Your task to perform on an android device: View the shopping cart on costco. Add "bose soundsport free" to the cart on costco, then select checkout. Image 0: 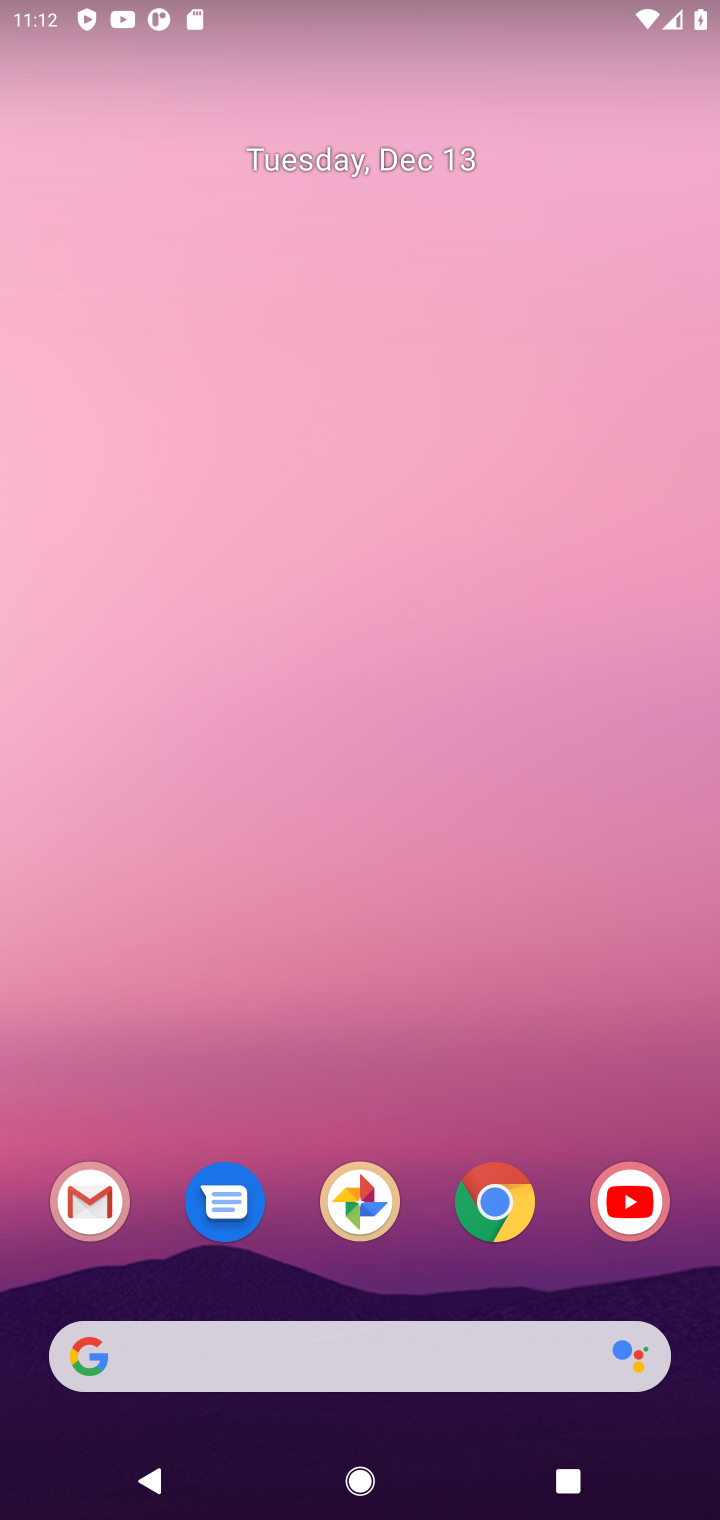
Step 0: click (488, 1210)
Your task to perform on an android device: View the shopping cart on costco. Add "bose soundsport free" to the cart on costco, then select checkout. Image 1: 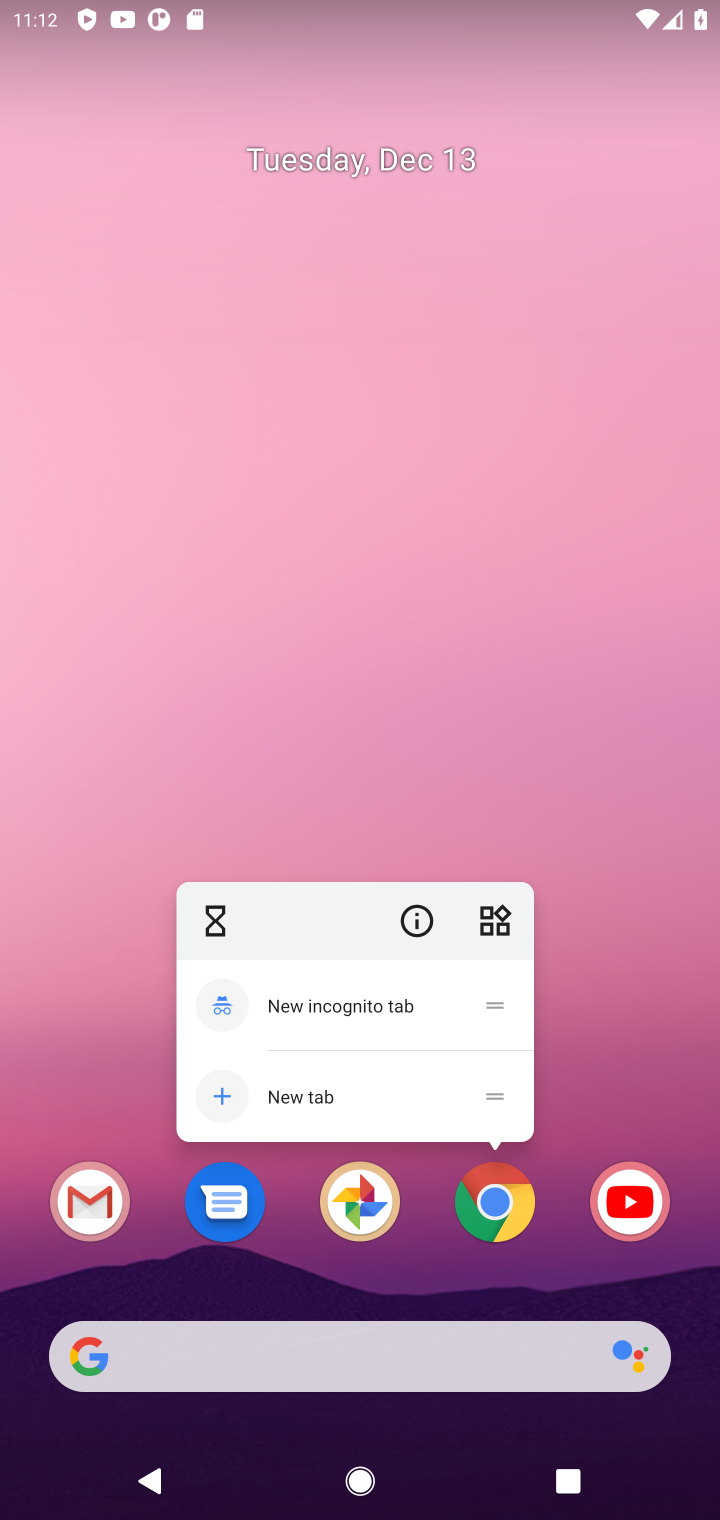
Step 1: click (488, 1210)
Your task to perform on an android device: View the shopping cart on costco. Add "bose soundsport free" to the cart on costco, then select checkout. Image 2: 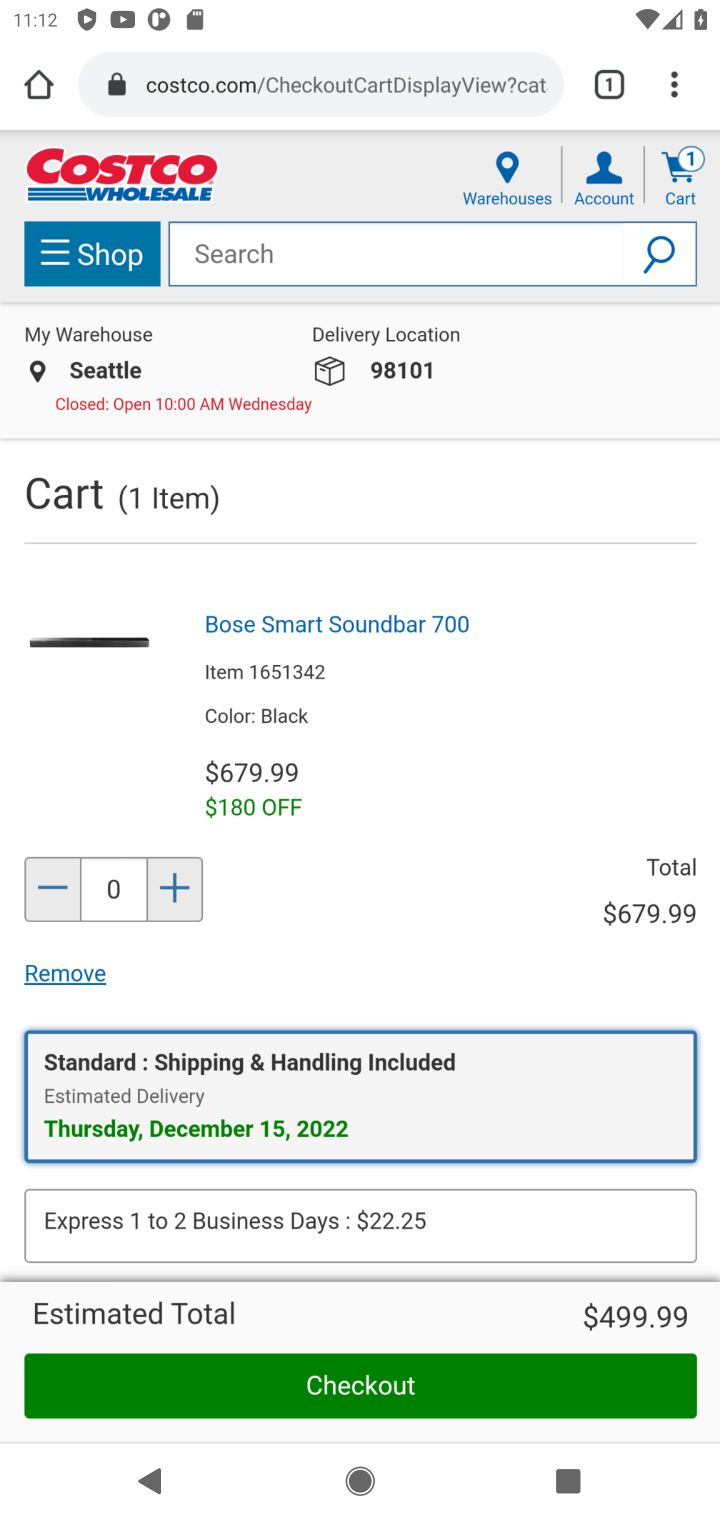
Step 2: click (488, 1210)
Your task to perform on an android device: View the shopping cart on costco. Add "bose soundsport free" to the cart on costco, then select checkout. Image 3: 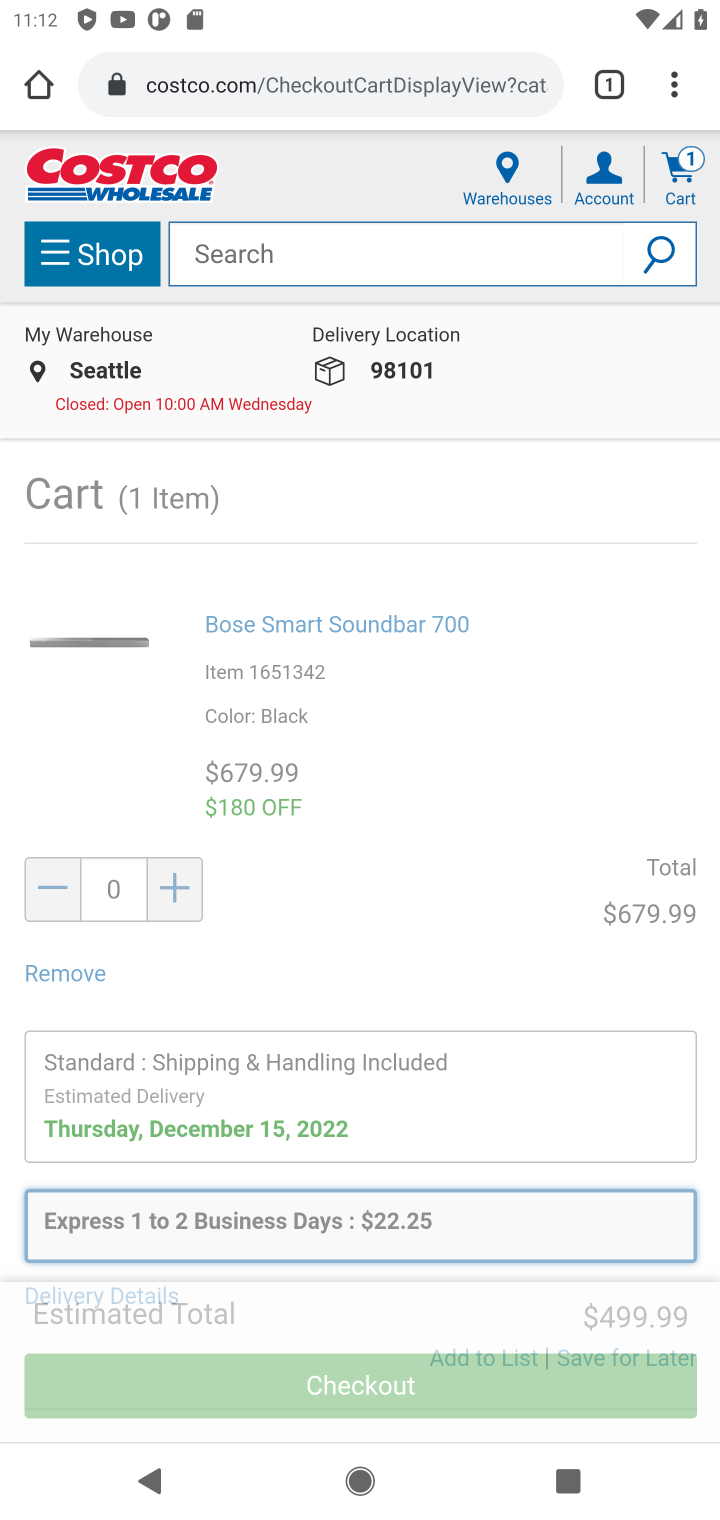
Step 3: click (356, 85)
Your task to perform on an android device: View the shopping cart on costco. Add "bose soundsport free" to the cart on costco, then select checkout. Image 4: 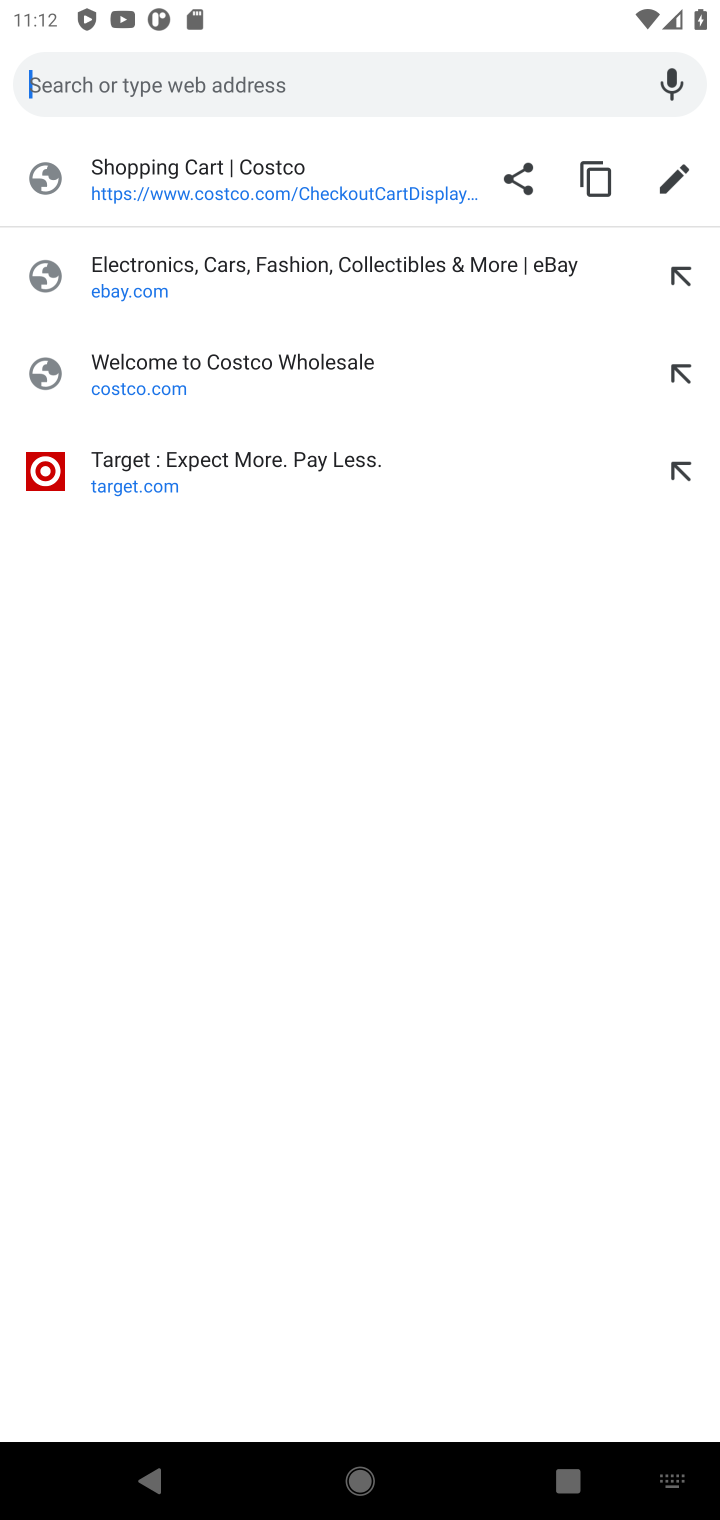
Step 4: click (178, 367)
Your task to perform on an android device: View the shopping cart on costco. Add "bose soundsport free" to the cart on costco, then select checkout. Image 5: 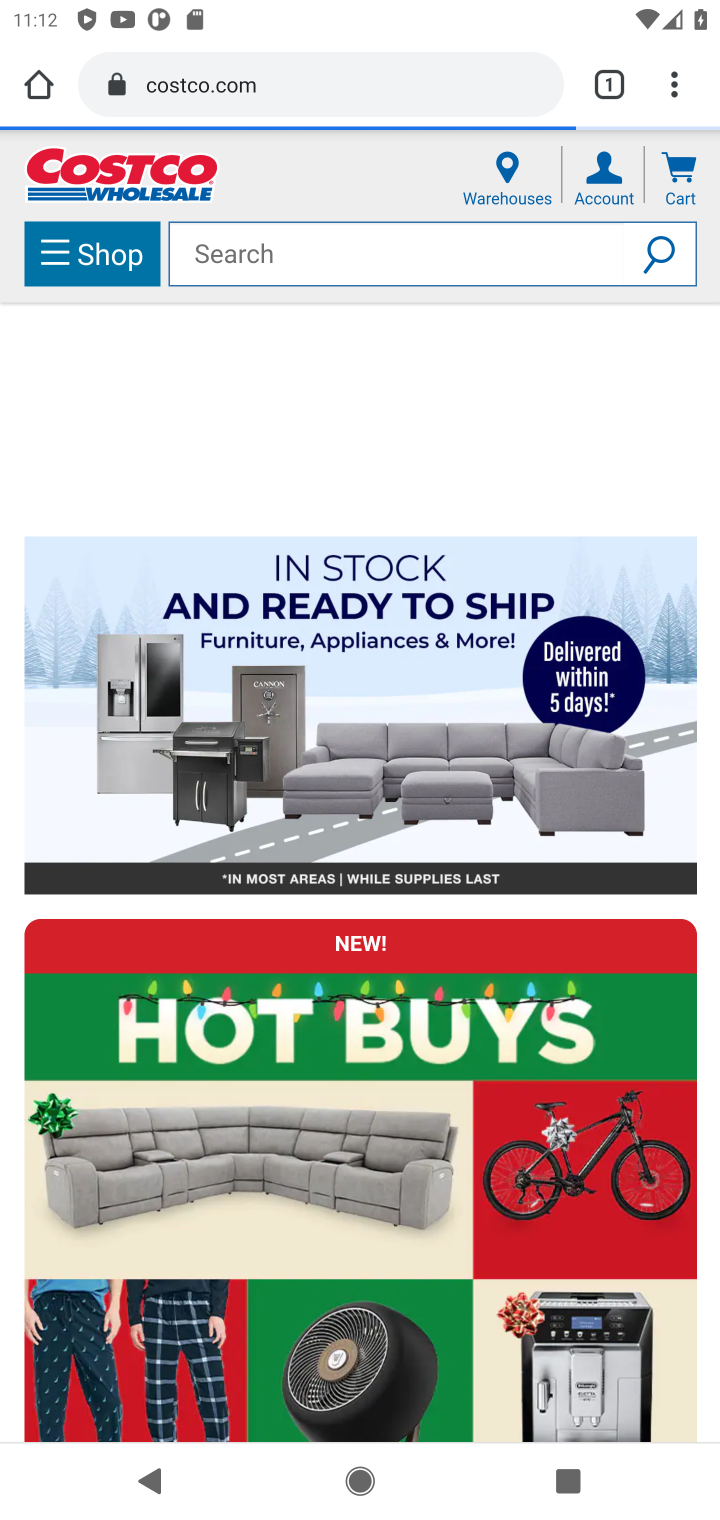
Step 5: click (318, 242)
Your task to perform on an android device: View the shopping cart on costco. Add "bose soundsport free" to the cart on costco, then select checkout. Image 6: 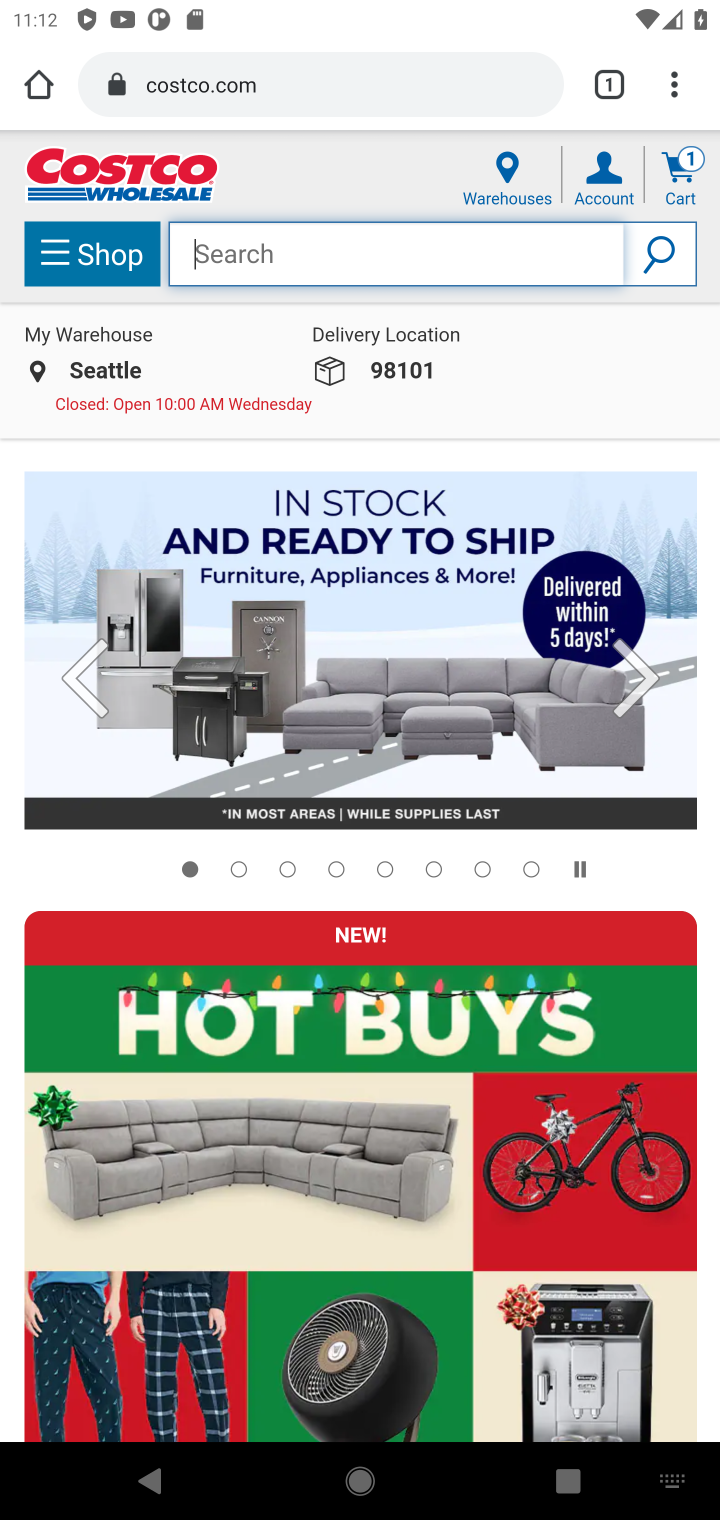
Step 6: type "bose soundsport free"
Your task to perform on an android device: View the shopping cart on costco. Add "bose soundsport free" to the cart on costco, then select checkout. Image 7: 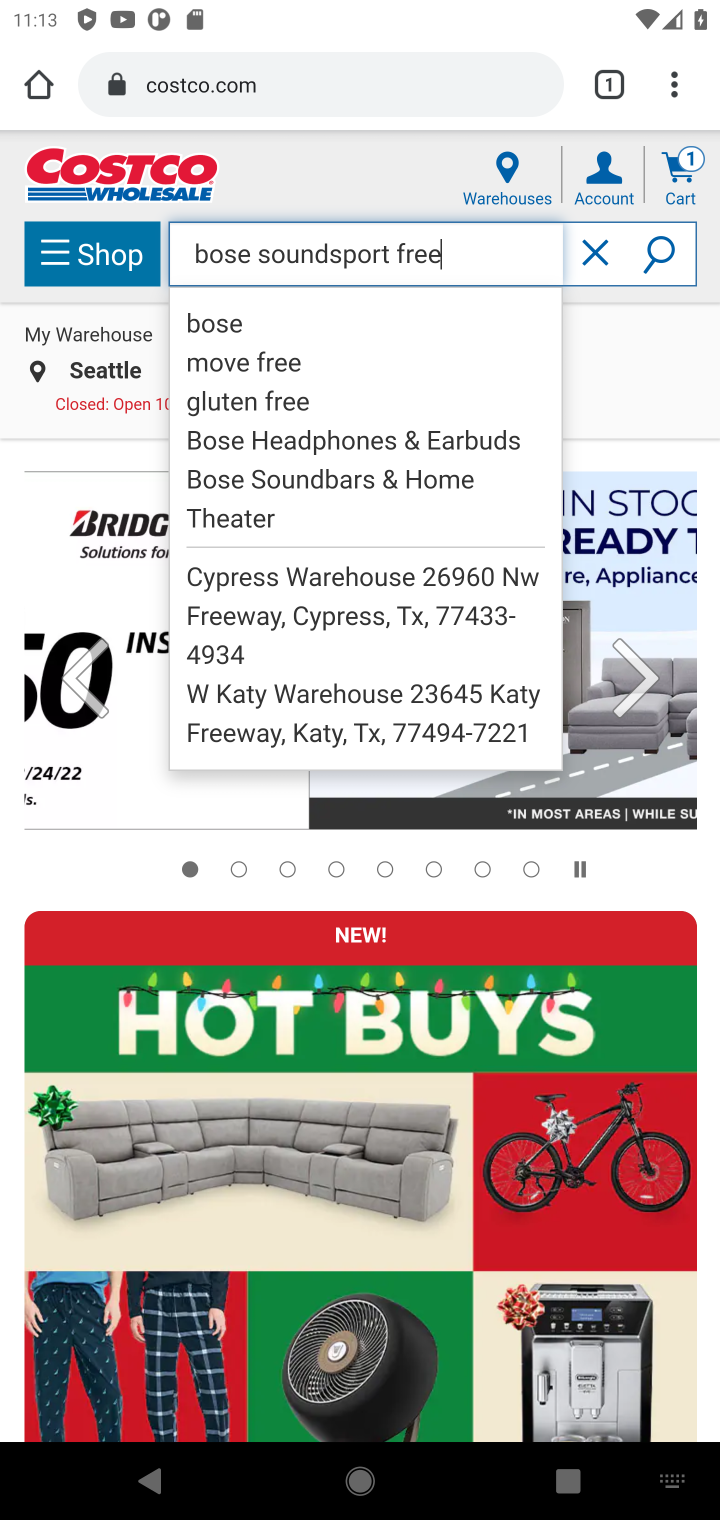
Step 7: click (232, 337)
Your task to perform on an android device: View the shopping cart on costco. Add "bose soundsport free" to the cart on costco, then select checkout. Image 8: 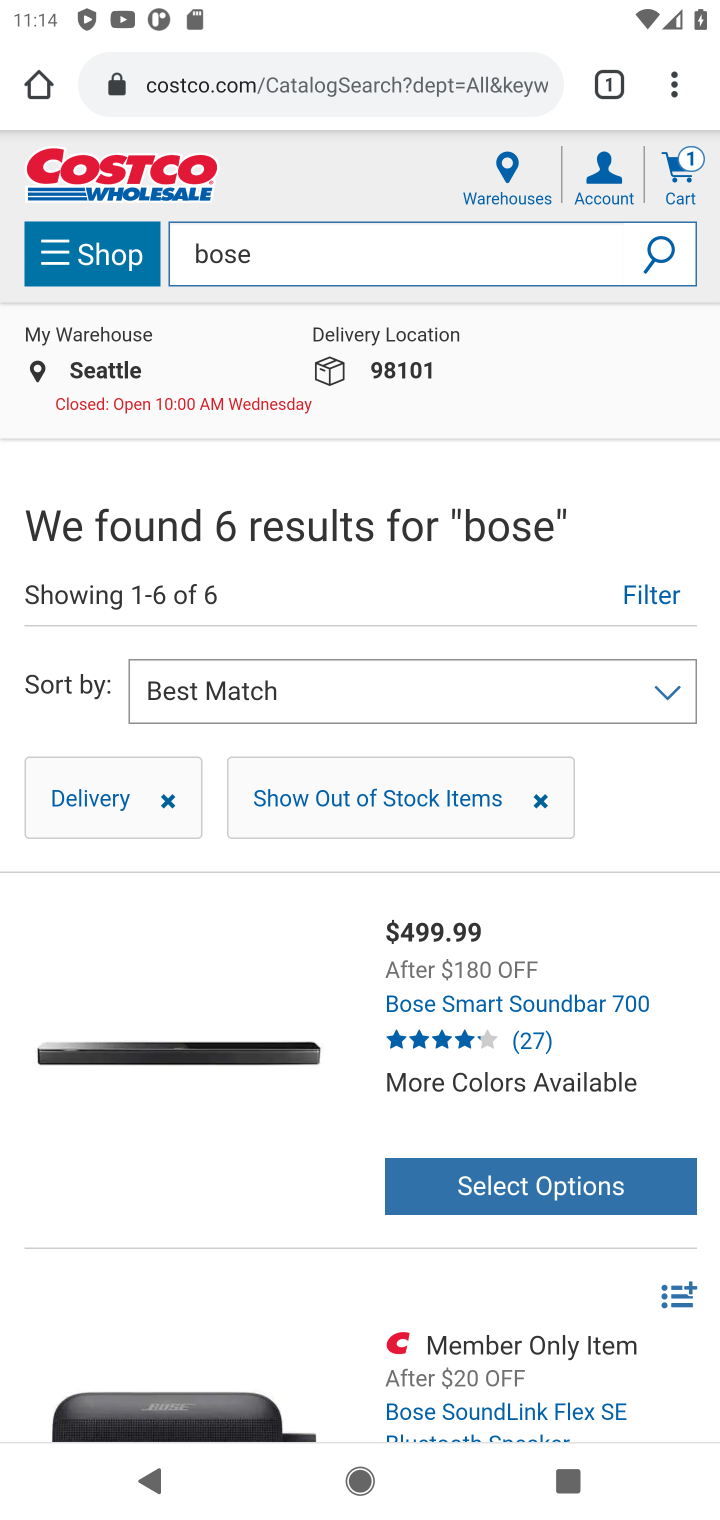
Step 8: click (271, 1037)
Your task to perform on an android device: View the shopping cart on costco. Add "bose soundsport free" to the cart on costco, then select checkout. Image 9: 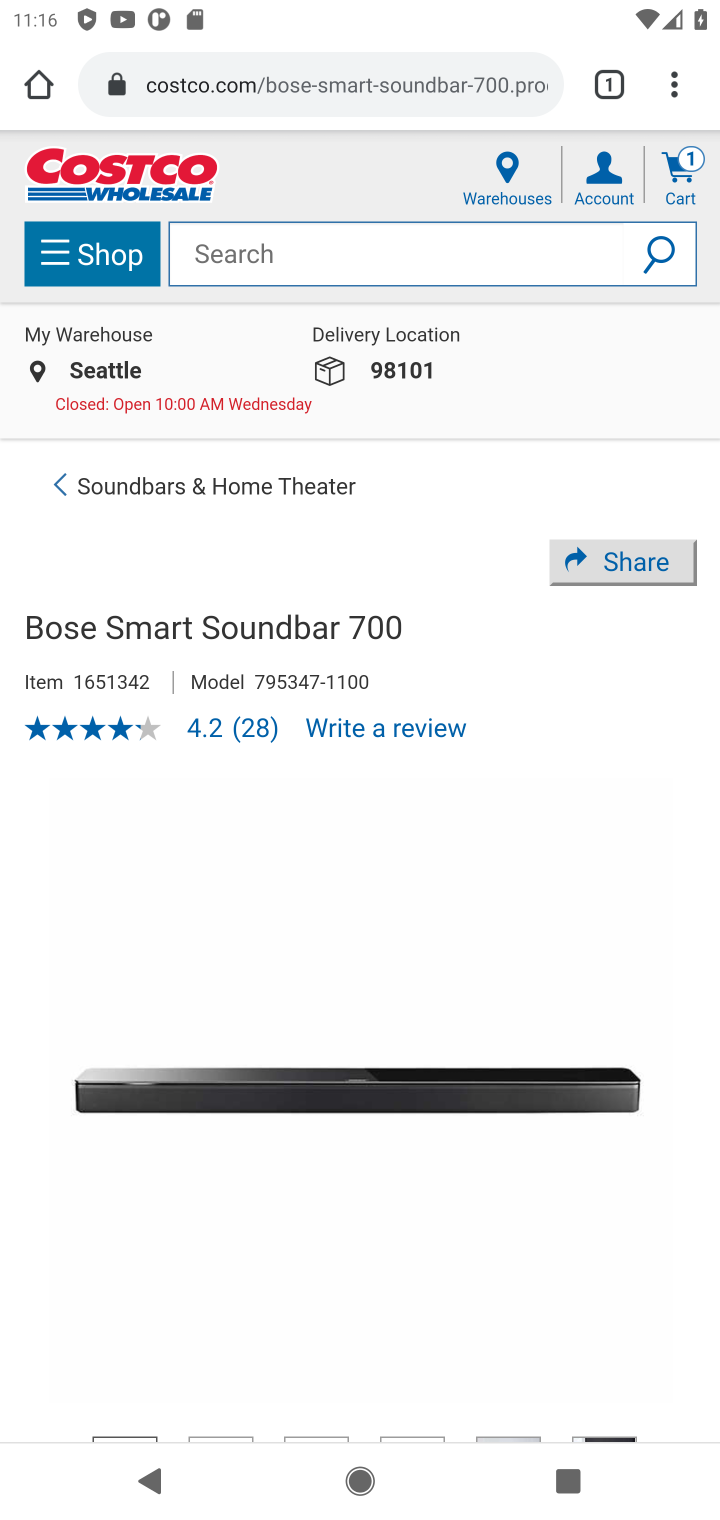
Step 9: drag from (377, 1183) to (298, 228)
Your task to perform on an android device: View the shopping cart on costco. Add "bose soundsport free" to the cart on costco, then select checkout. Image 10: 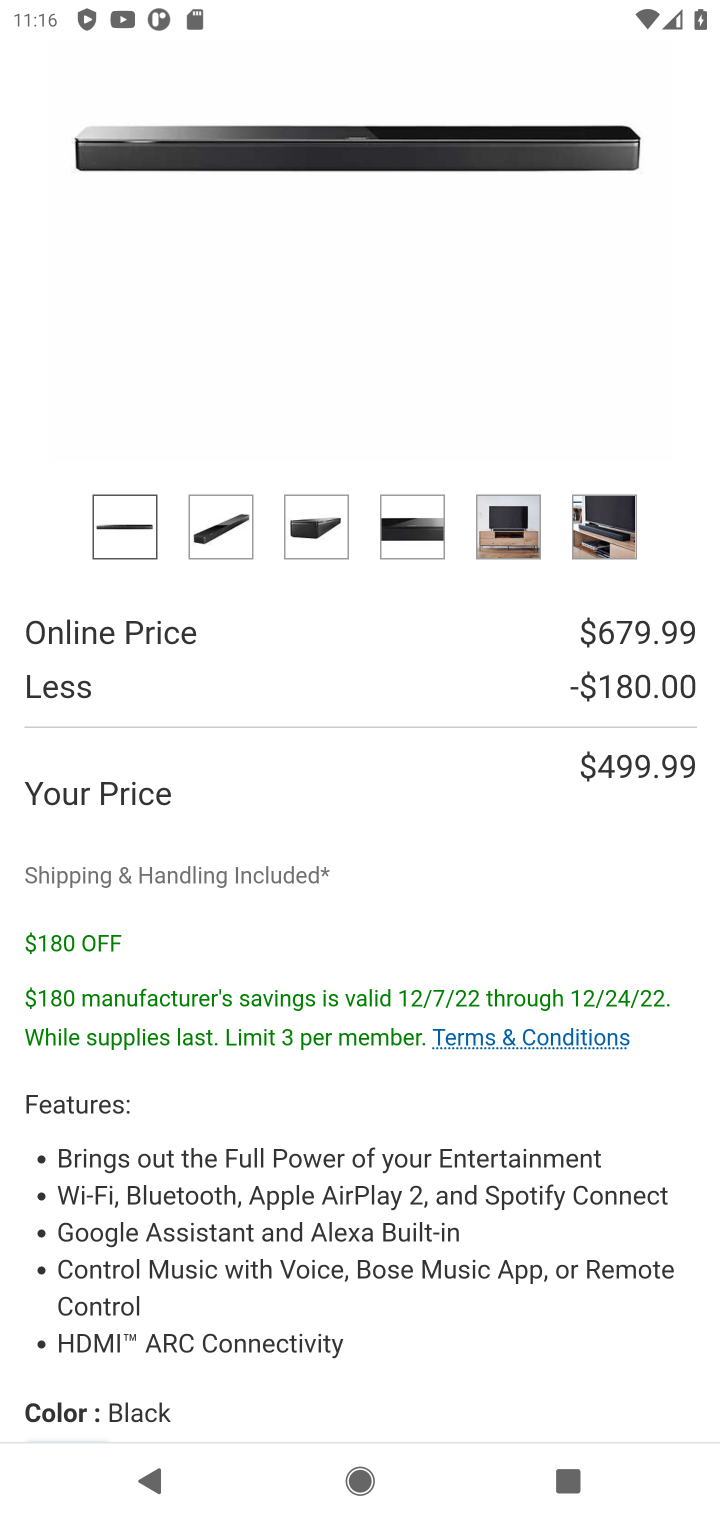
Step 10: drag from (529, 1292) to (455, 152)
Your task to perform on an android device: View the shopping cart on costco. Add "bose soundsport free" to the cart on costco, then select checkout. Image 11: 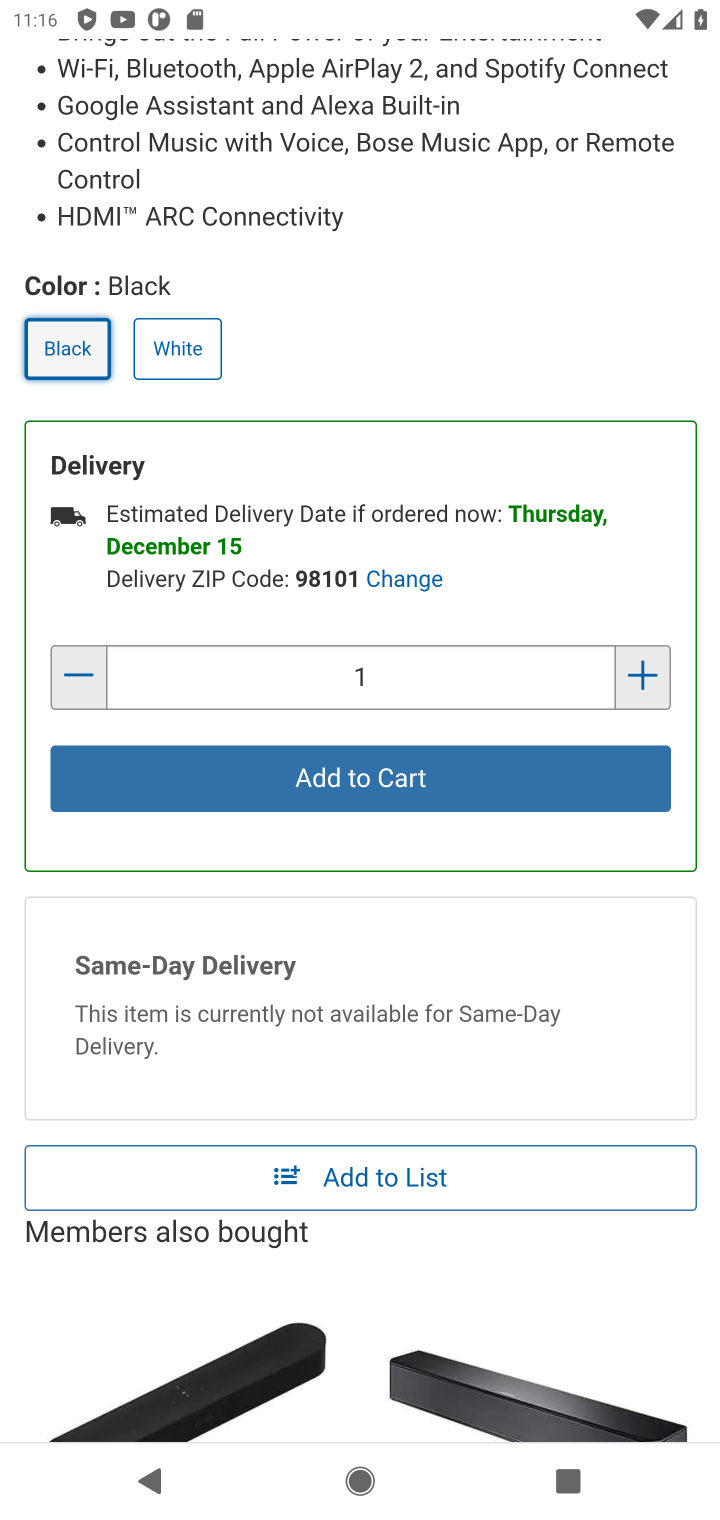
Step 11: click (360, 781)
Your task to perform on an android device: View the shopping cart on costco. Add "bose soundsport free" to the cart on costco, then select checkout. Image 12: 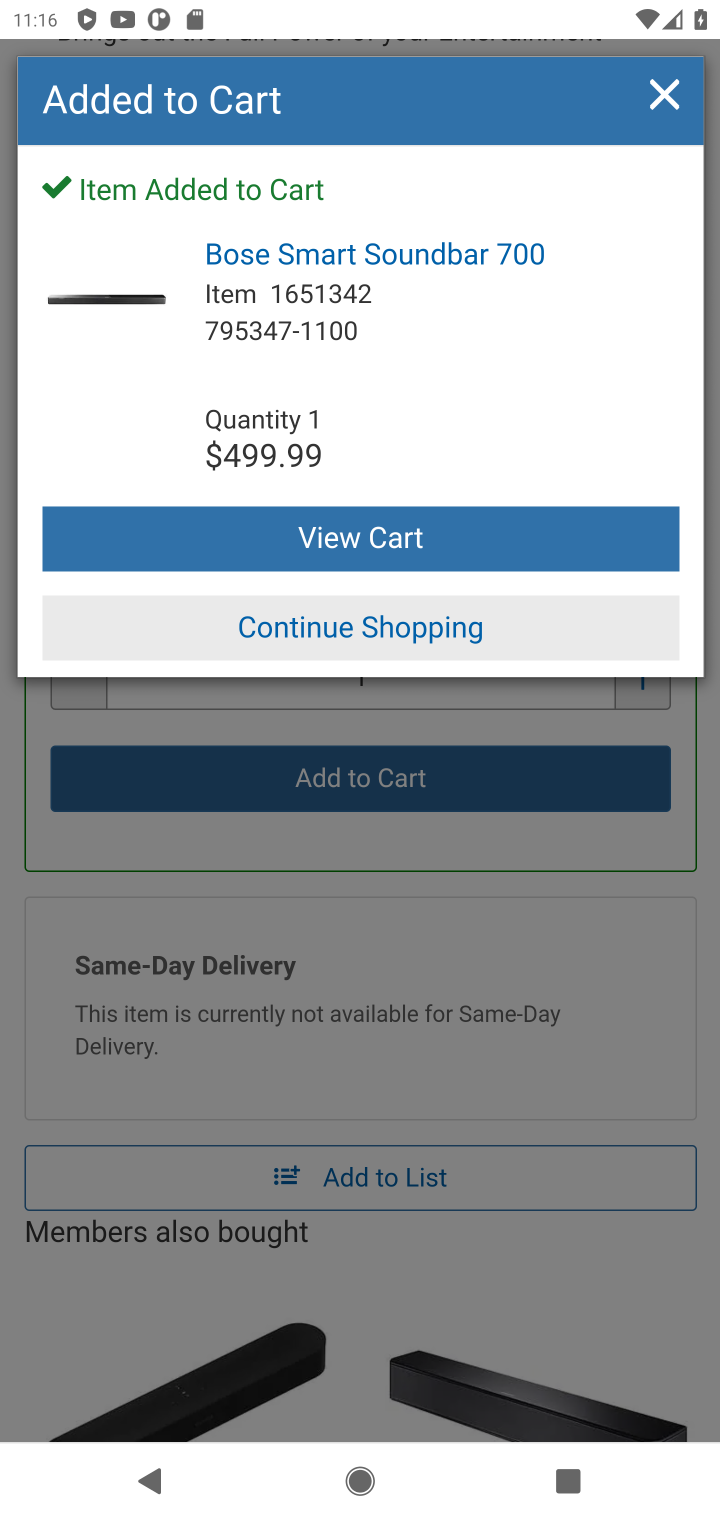
Step 12: click (392, 533)
Your task to perform on an android device: View the shopping cart on costco. Add "bose soundsport free" to the cart on costco, then select checkout. Image 13: 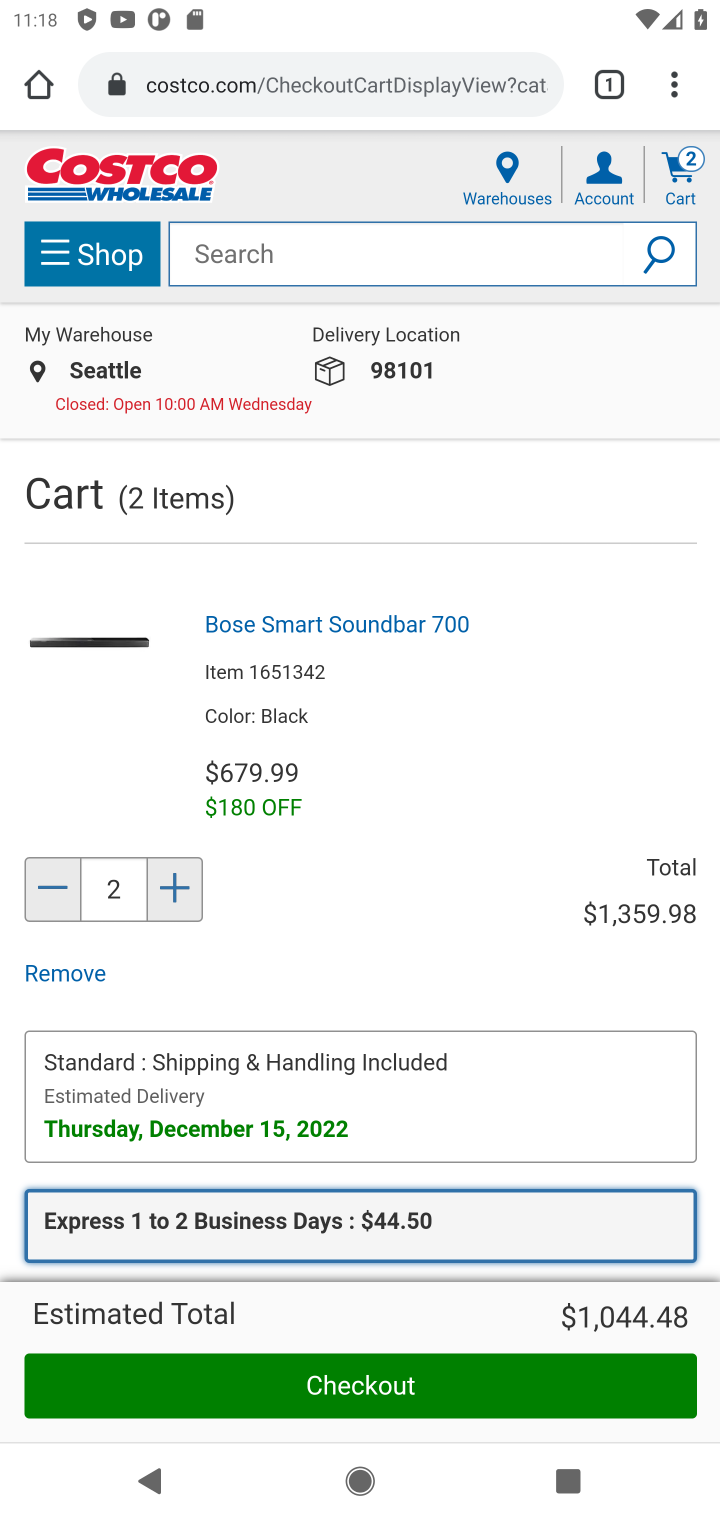
Step 13: click (342, 1385)
Your task to perform on an android device: View the shopping cart on costco. Add "bose soundsport free" to the cart on costco, then select checkout. Image 14: 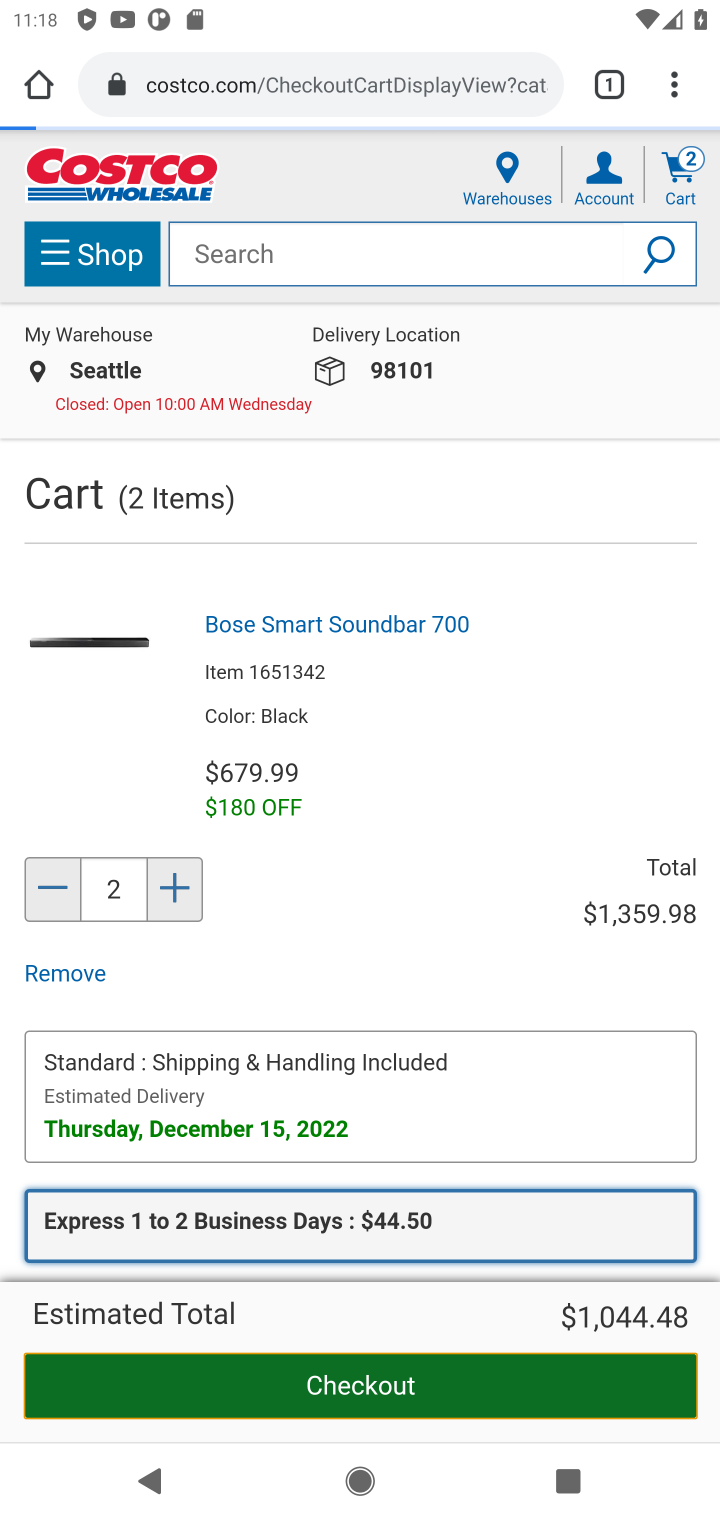
Step 14: task complete